Your task to perform on an android device: Turn on the flashlight Image 0: 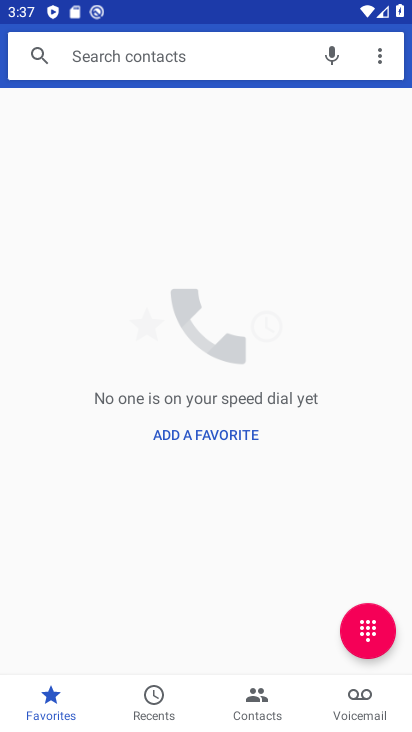
Step 0: press home button
Your task to perform on an android device: Turn on the flashlight Image 1: 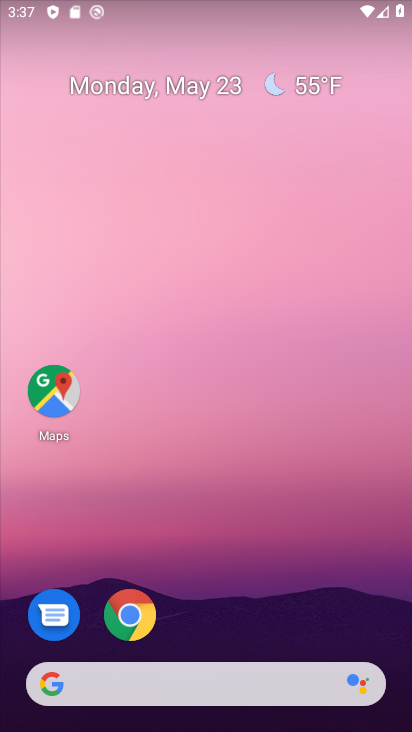
Step 1: drag from (208, 4) to (211, 513)
Your task to perform on an android device: Turn on the flashlight Image 2: 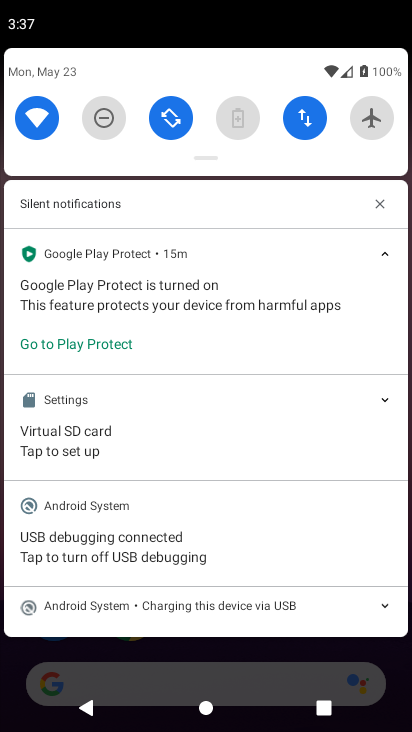
Step 2: drag from (195, 66) to (186, 347)
Your task to perform on an android device: Turn on the flashlight Image 3: 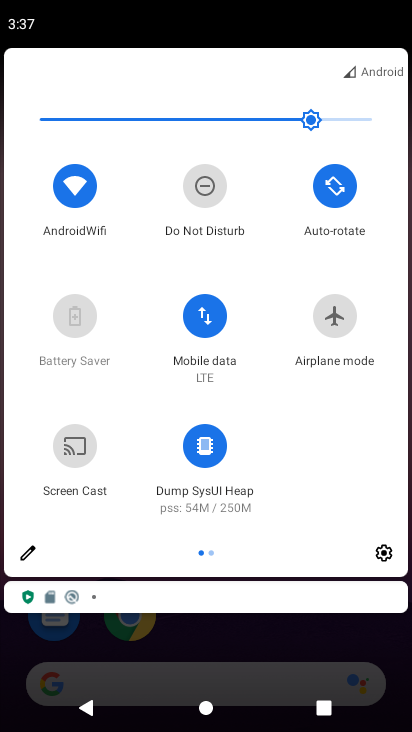
Step 3: click (29, 558)
Your task to perform on an android device: Turn on the flashlight Image 4: 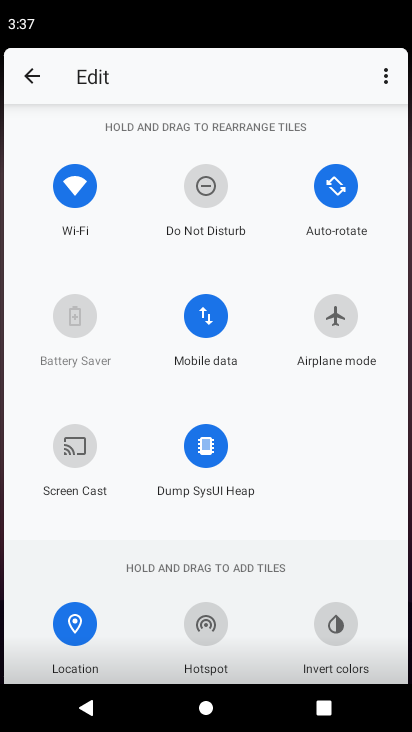
Step 4: task complete